Your task to perform on an android device: choose inbox layout in the gmail app Image 0: 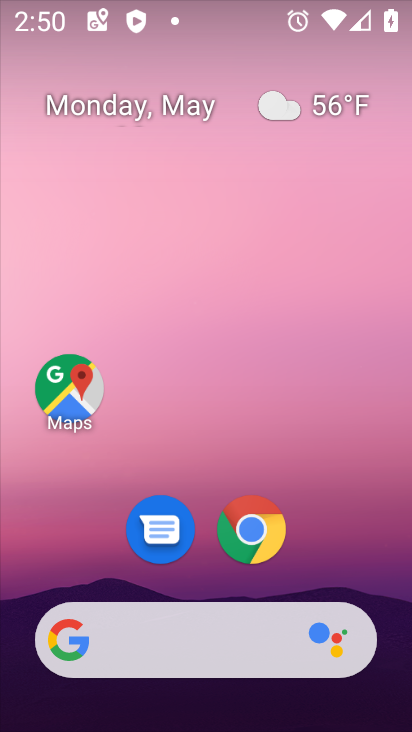
Step 0: drag from (324, 570) to (323, 110)
Your task to perform on an android device: choose inbox layout in the gmail app Image 1: 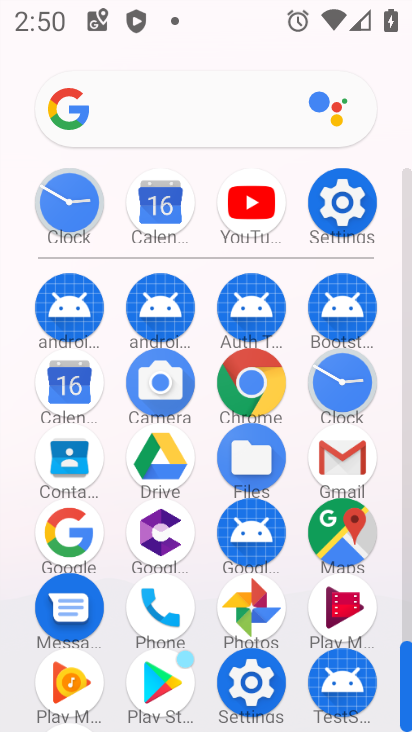
Step 1: click (335, 457)
Your task to perform on an android device: choose inbox layout in the gmail app Image 2: 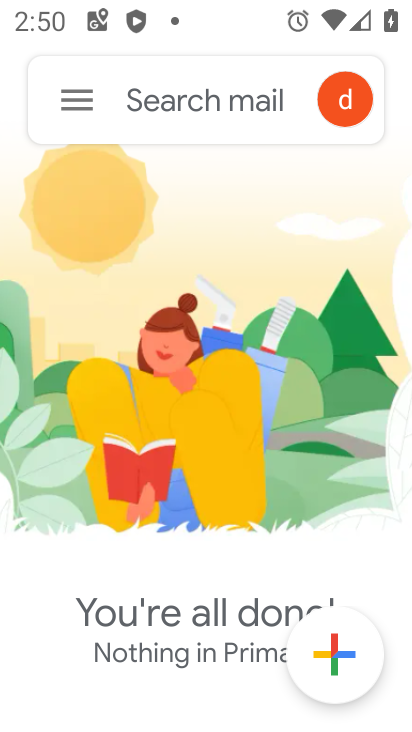
Step 2: click (67, 100)
Your task to perform on an android device: choose inbox layout in the gmail app Image 3: 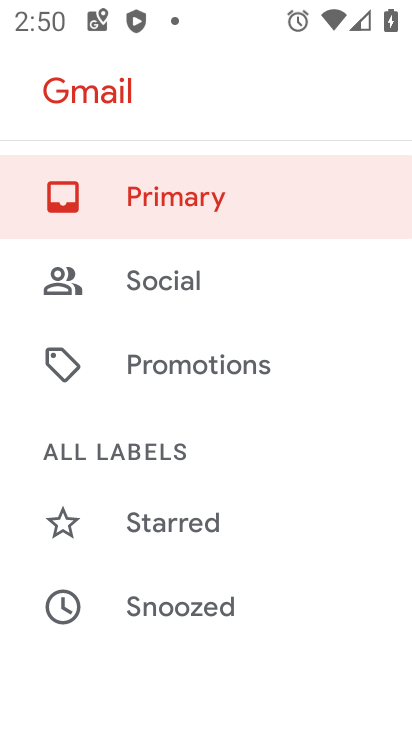
Step 3: drag from (186, 564) to (225, 387)
Your task to perform on an android device: choose inbox layout in the gmail app Image 4: 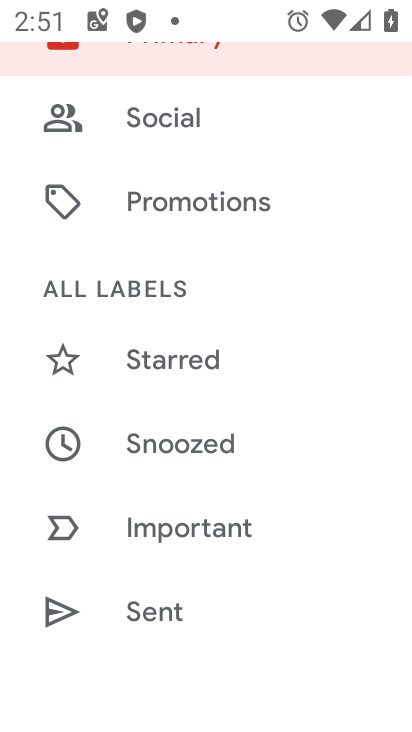
Step 4: drag from (252, 598) to (289, 367)
Your task to perform on an android device: choose inbox layout in the gmail app Image 5: 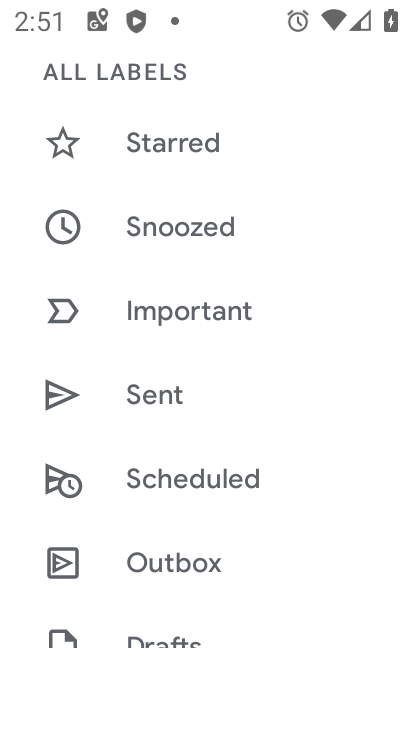
Step 5: drag from (331, 595) to (338, 291)
Your task to perform on an android device: choose inbox layout in the gmail app Image 6: 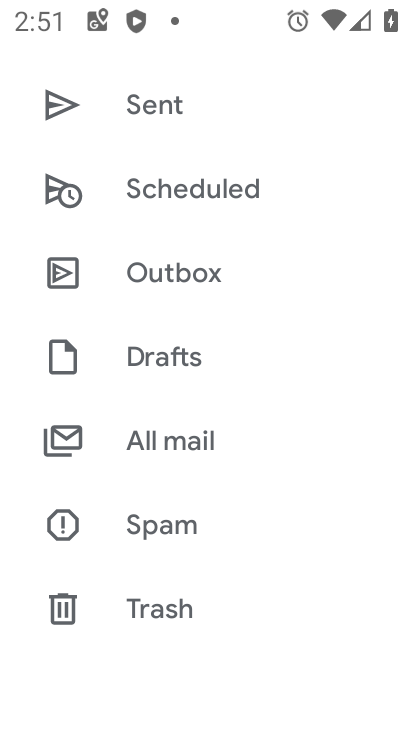
Step 6: drag from (255, 605) to (325, 305)
Your task to perform on an android device: choose inbox layout in the gmail app Image 7: 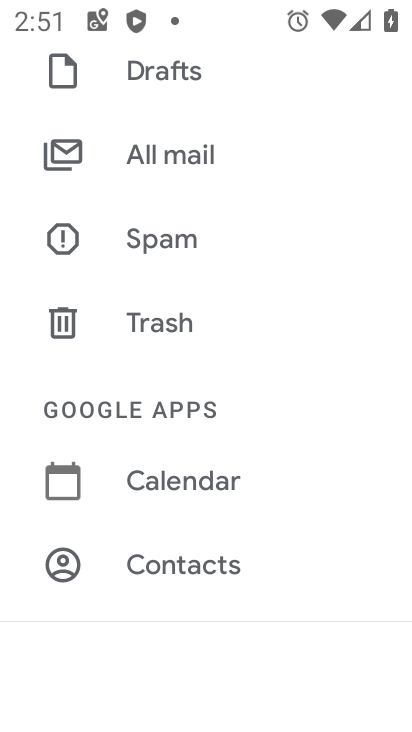
Step 7: drag from (230, 584) to (247, 293)
Your task to perform on an android device: choose inbox layout in the gmail app Image 8: 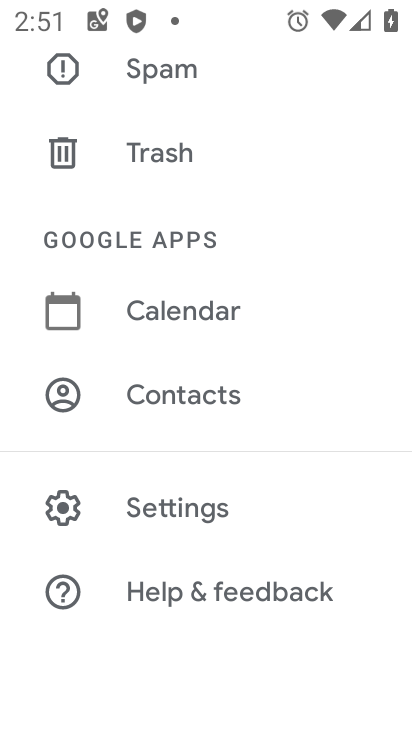
Step 8: click (211, 503)
Your task to perform on an android device: choose inbox layout in the gmail app Image 9: 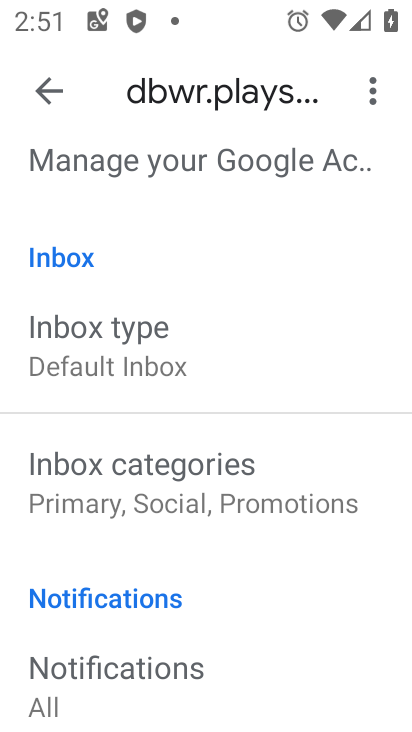
Step 9: click (144, 369)
Your task to perform on an android device: choose inbox layout in the gmail app Image 10: 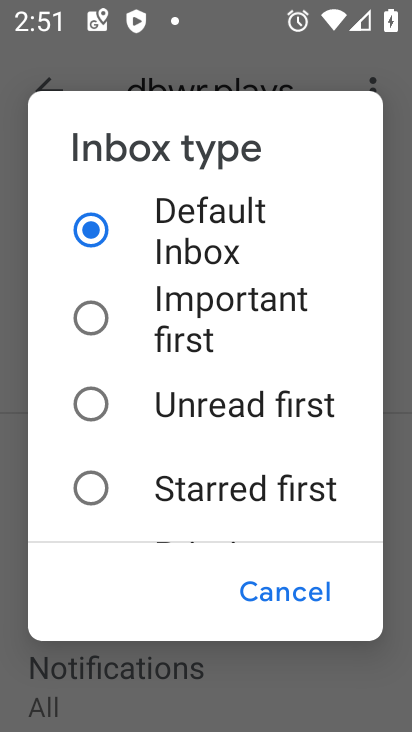
Step 10: click (110, 331)
Your task to perform on an android device: choose inbox layout in the gmail app Image 11: 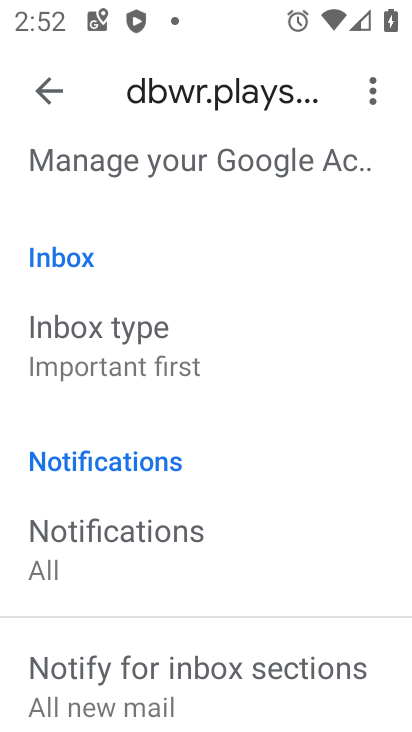
Step 11: task complete